Your task to perform on an android device: Go to wifi settings Image 0: 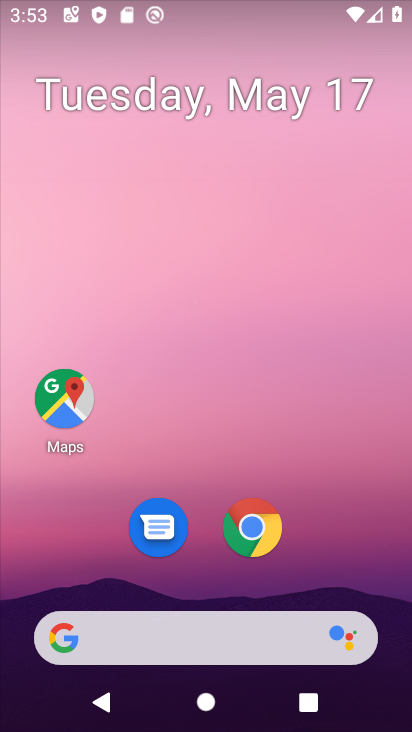
Step 0: drag from (58, 592) to (207, 168)
Your task to perform on an android device: Go to wifi settings Image 1: 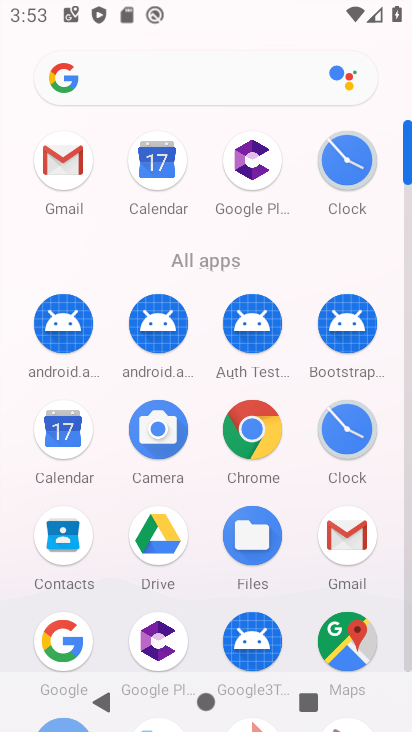
Step 1: drag from (154, 598) to (236, 300)
Your task to perform on an android device: Go to wifi settings Image 2: 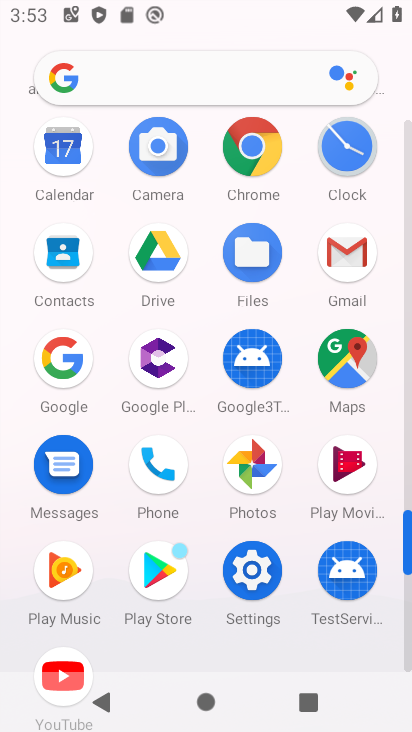
Step 2: click (251, 584)
Your task to perform on an android device: Go to wifi settings Image 3: 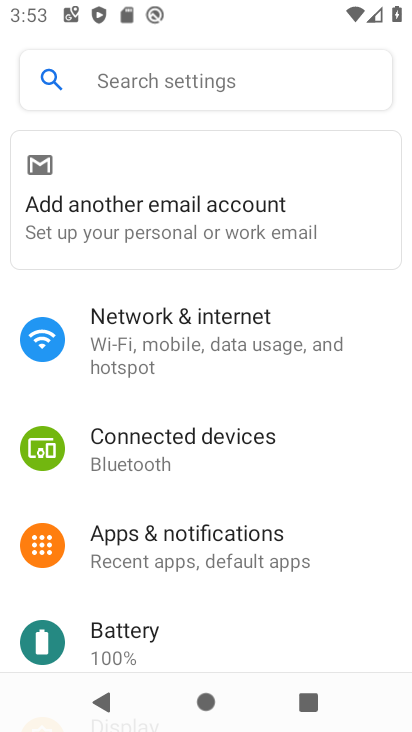
Step 3: click (255, 349)
Your task to perform on an android device: Go to wifi settings Image 4: 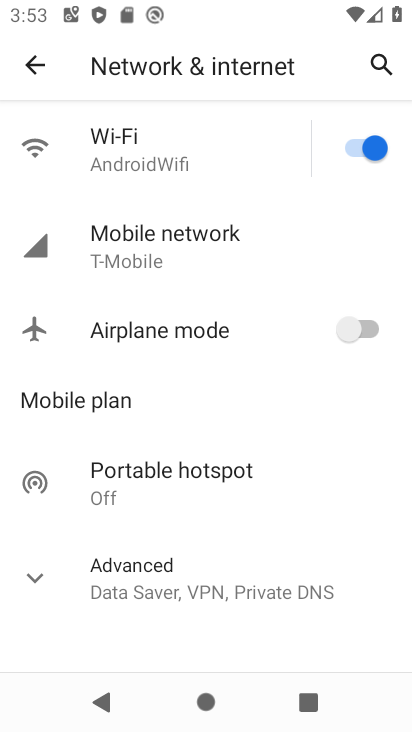
Step 4: click (189, 161)
Your task to perform on an android device: Go to wifi settings Image 5: 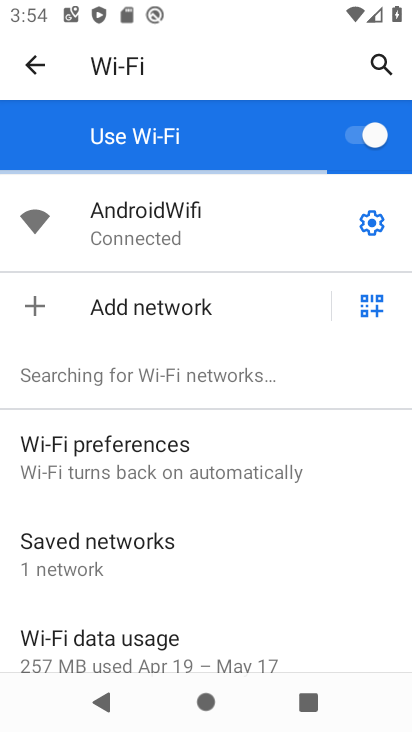
Step 5: task complete